Your task to perform on an android device: allow cookies in the chrome app Image 0: 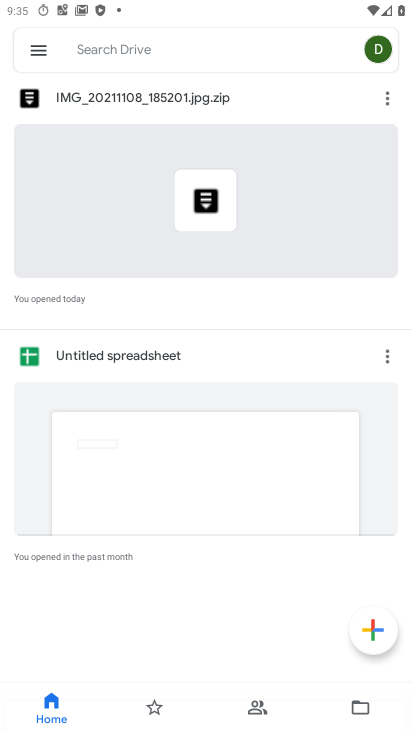
Step 0: press home button
Your task to perform on an android device: allow cookies in the chrome app Image 1: 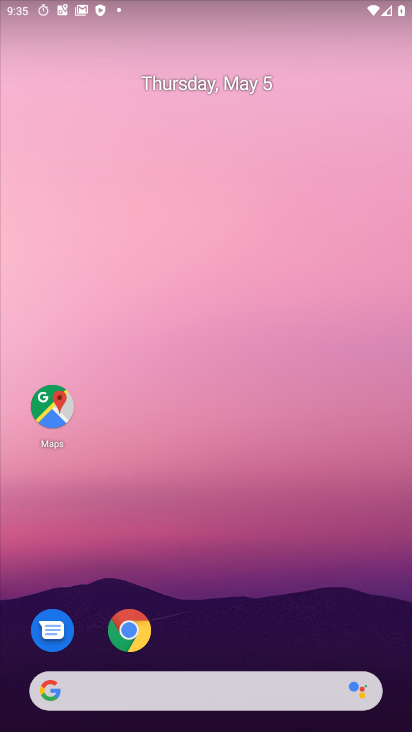
Step 1: click (133, 625)
Your task to perform on an android device: allow cookies in the chrome app Image 2: 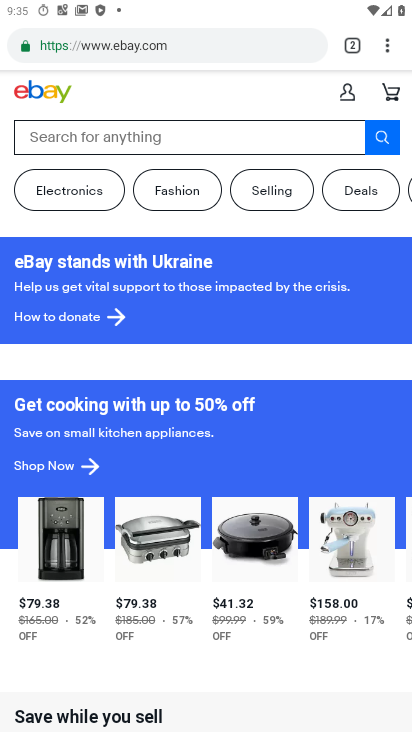
Step 2: drag from (387, 45) to (228, 551)
Your task to perform on an android device: allow cookies in the chrome app Image 3: 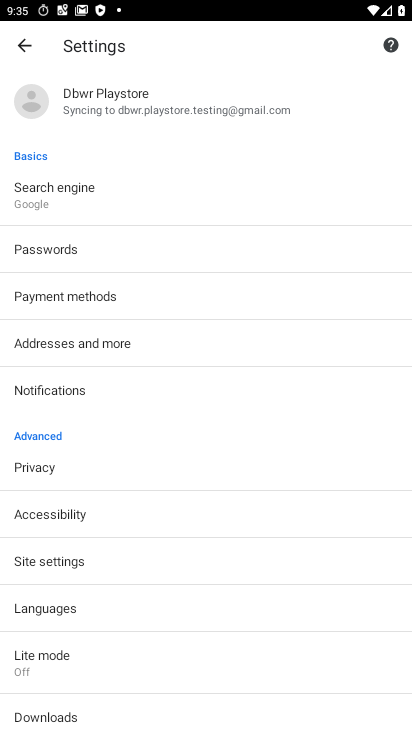
Step 3: click (58, 562)
Your task to perform on an android device: allow cookies in the chrome app Image 4: 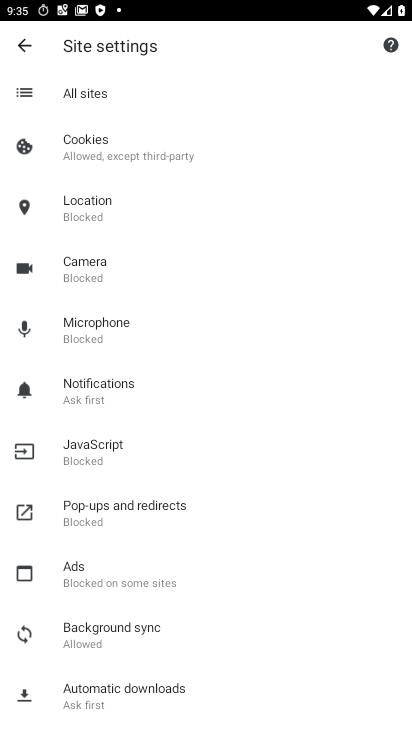
Step 4: click (102, 153)
Your task to perform on an android device: allow cookies in the chrome app Image 5: 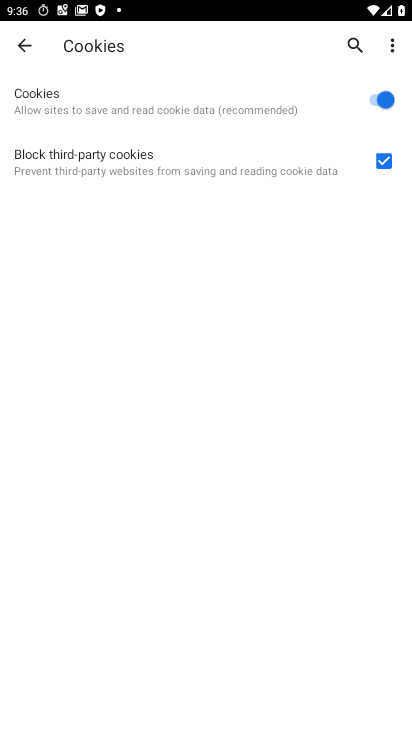
Step 5: task complete